Your task to perform on an android device: uninstall "Google Duo" Image 0: 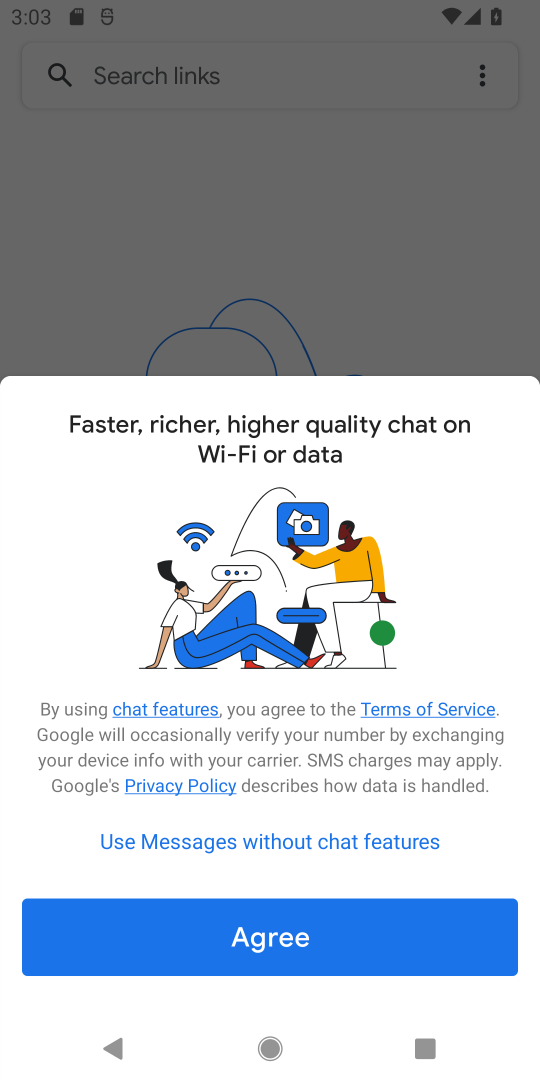
Step 0: press home button
Your task to perform on an android device: uninstall "Google Duo" Image 1: 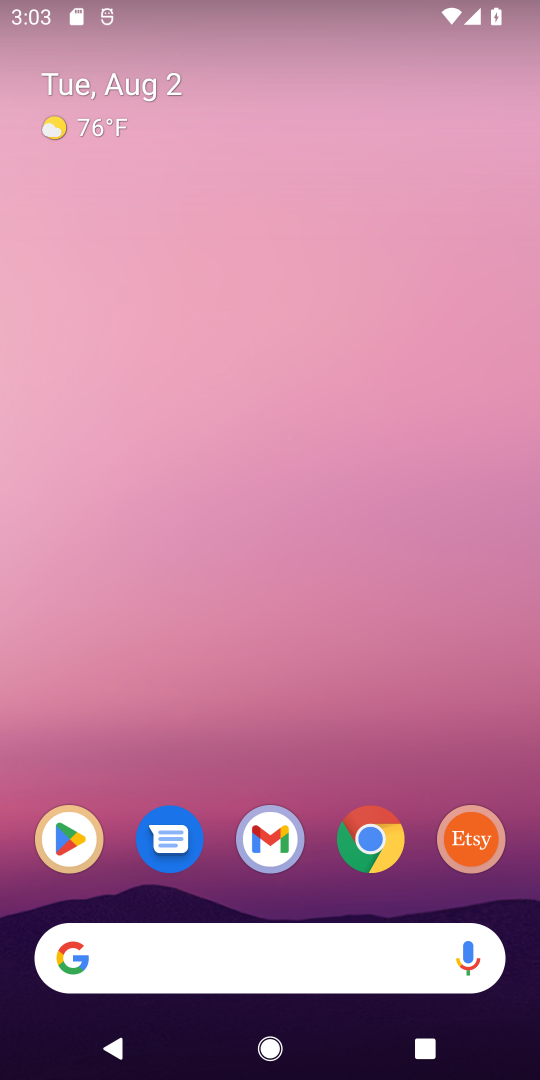
Step 1: click (83, 862)
Your task to perform on an android device: uninstall "Google Duo" Image 2: 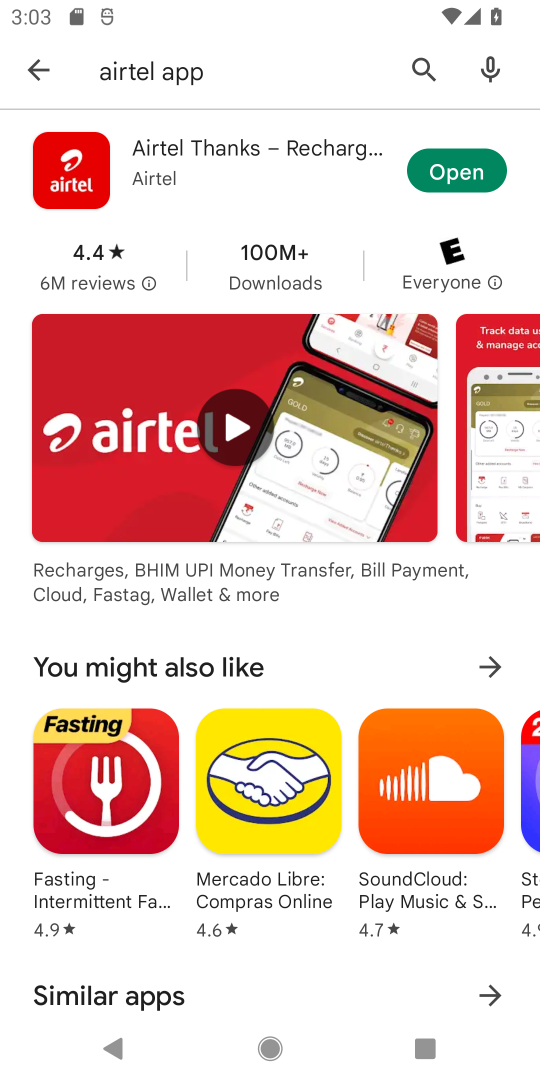
Step 2: click (422, 83)
Your task to perform on an android device: uninstall "Google Duo" Image 3: 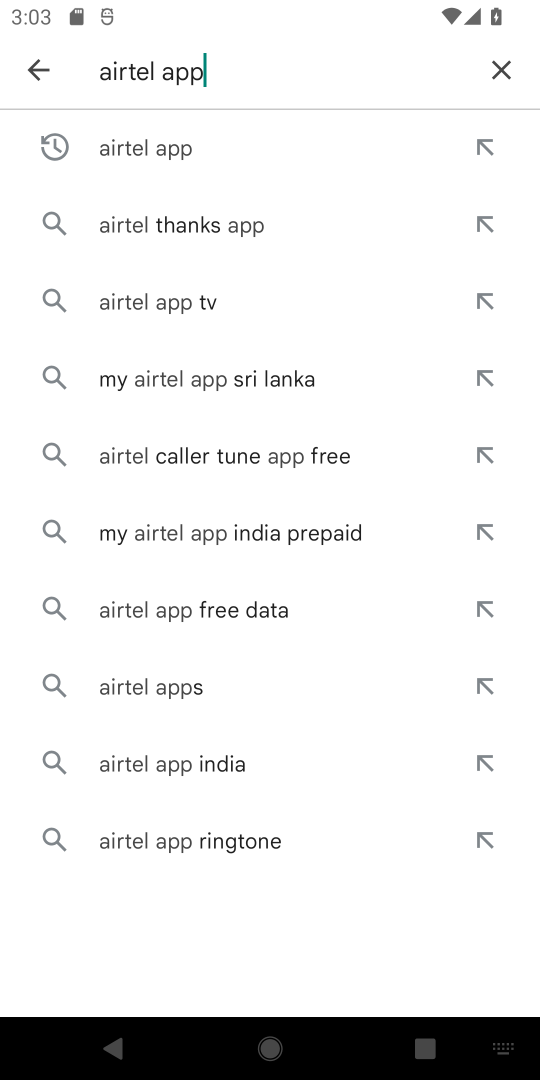
Step 3: click (497, 80)
Your task to perform on an android device: uninstall "Google Duo" Image 4: 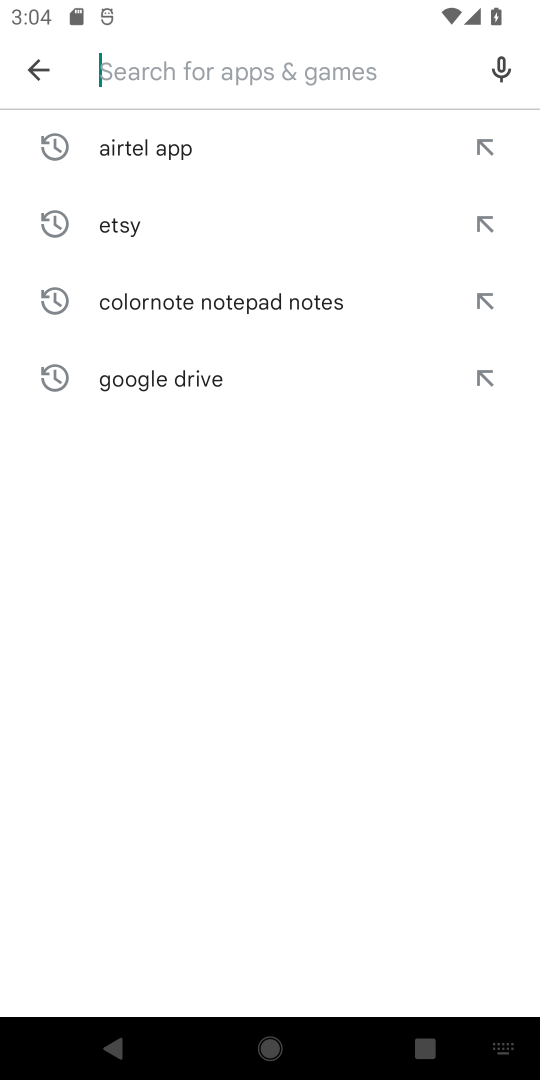
Step 4: type "google duo"
Your task to perform on an android device: uninstall "Google Duo" Image 5: 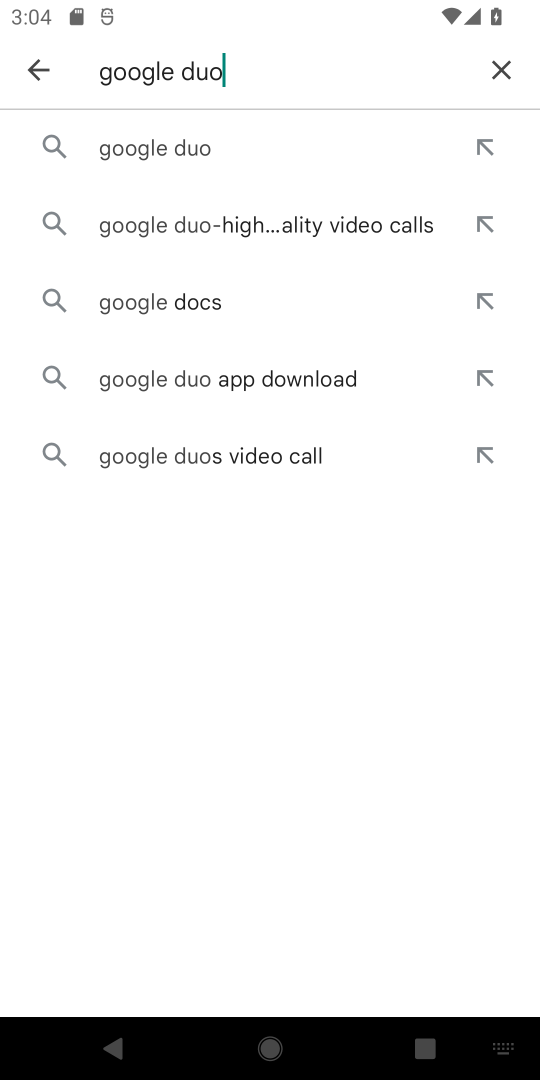
Step 5: click (337, 131)
Your task to perform on an android device: uninstall "Google Duo" Image 6: 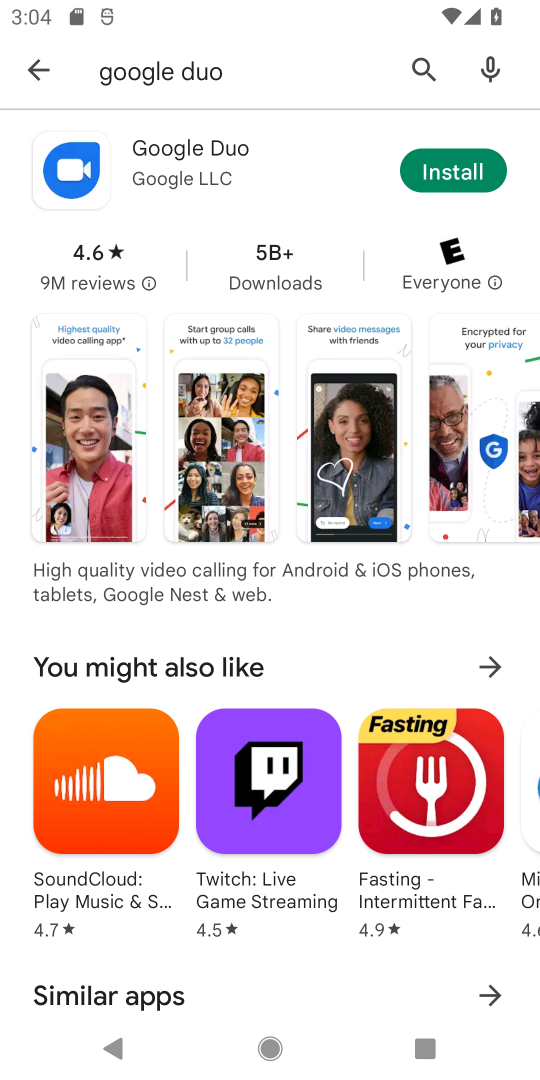
Step 6: click (410, 170)
Your task to perform on an android device: uninstall "Google Duo" Image 7: 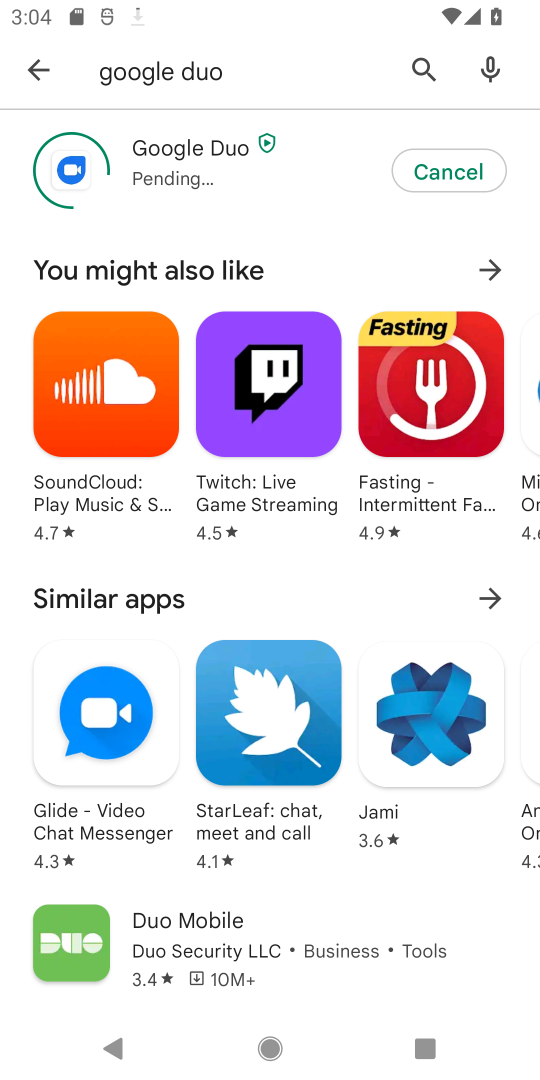
Step 7: task complete